Your task to perform on an android device: check storage Image 0: 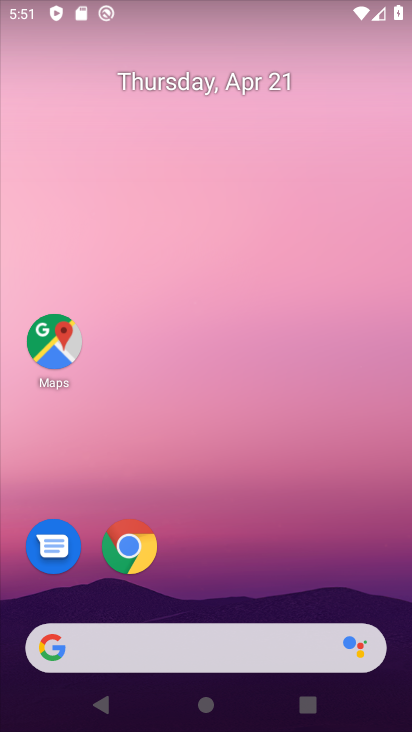
Step 0: drag from (299, 595) to (392, 344)
Your task to perform on an android device: check storage Image 1: 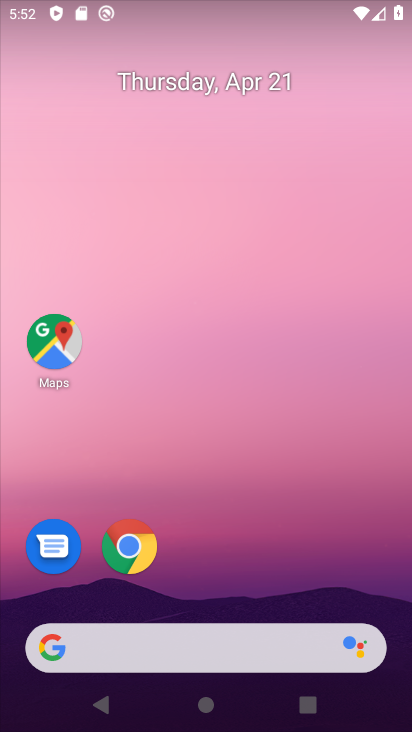
Step 1: drag from (327, 594) to (367, 16)
Your task to perform on an android device: check storage Image 2: 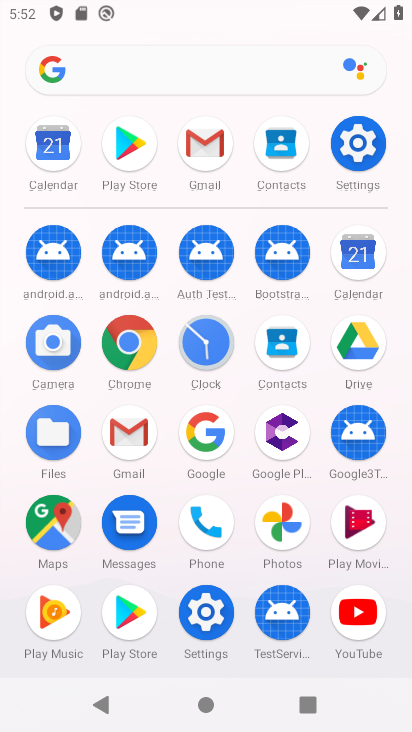
Step 2: click (359, 135)
Your task to perform on an android device: check storage Image 3: 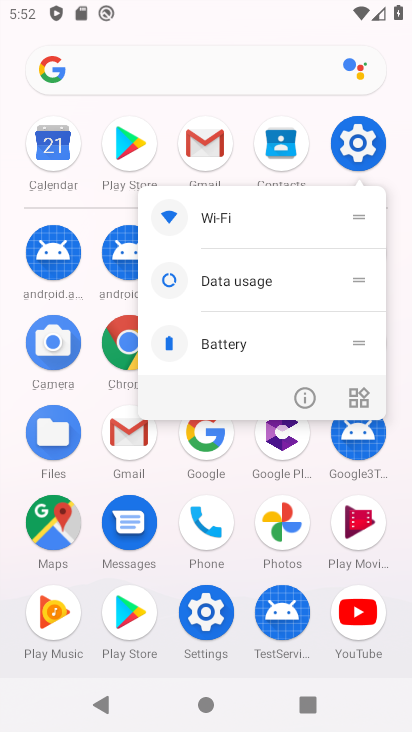
Step 3: click (359, 135)
Your task to perform on an android device: check storage Image 4: 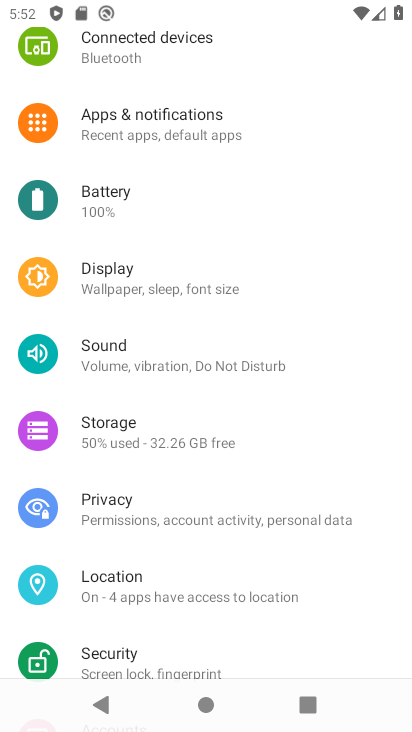
Step 4: click (145, 425)
Your task to perform on an android device: check storage Image 5: 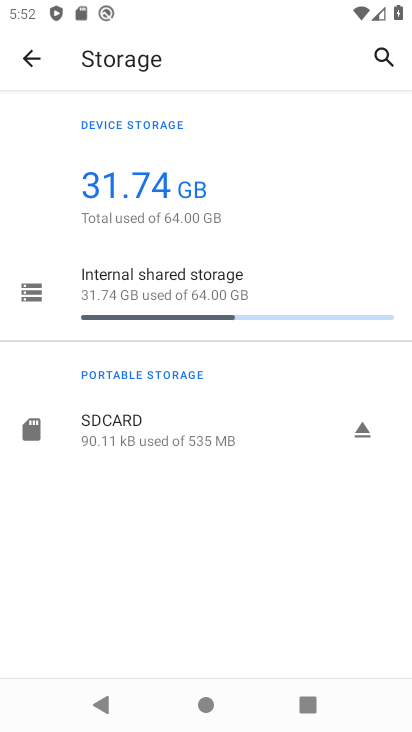
Step 5: task complete